Your task to perform on an android device: toggle improve location accuracy Image 0: 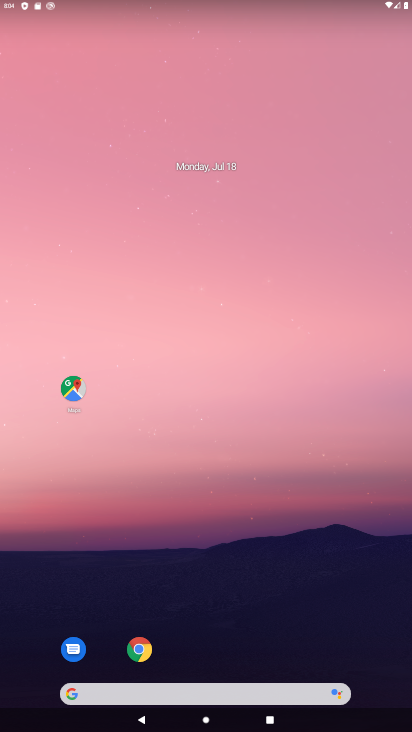
Step 0: drag from (57, 590) to (229, 134)
Your task to perform on an android device: toggle improve location accuracy Image 1: 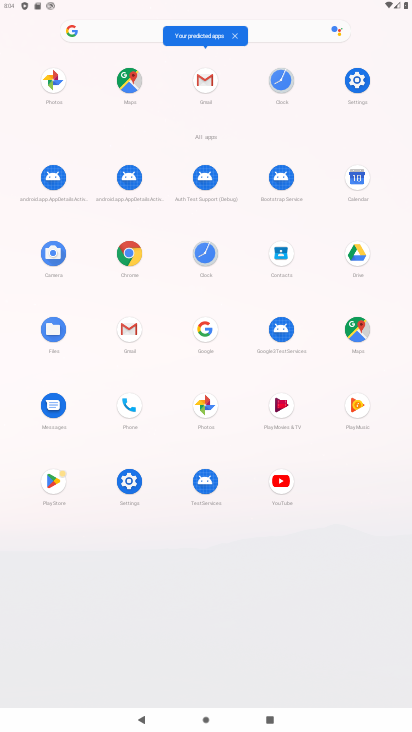
Step 1: click (138, 483)
Your task to perform on an android device: toggle improve location accuracy Image 2: 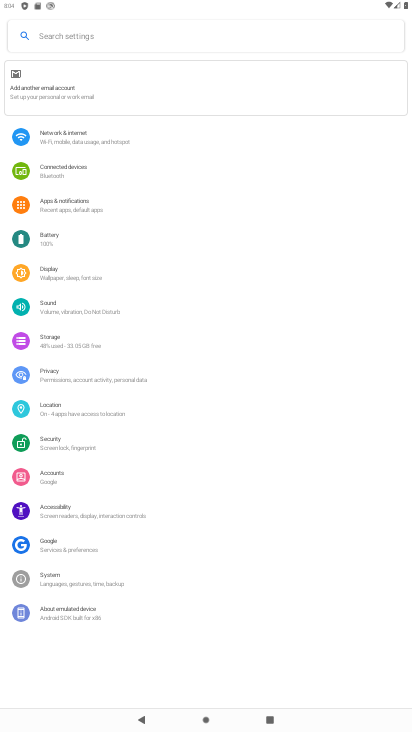
Step 2: click (69, 405)
Your task to perform on an android device: toggle improve location accuracy Image 3: 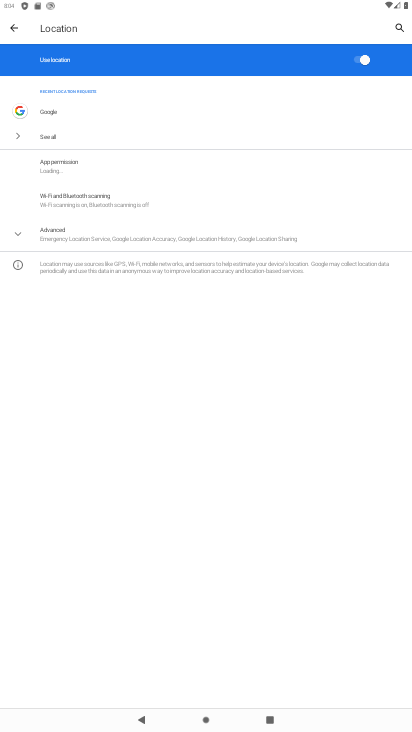
Step 3: click (85, 232)
Your task to perform on an android device: toggle improve location accuracy Image 4: 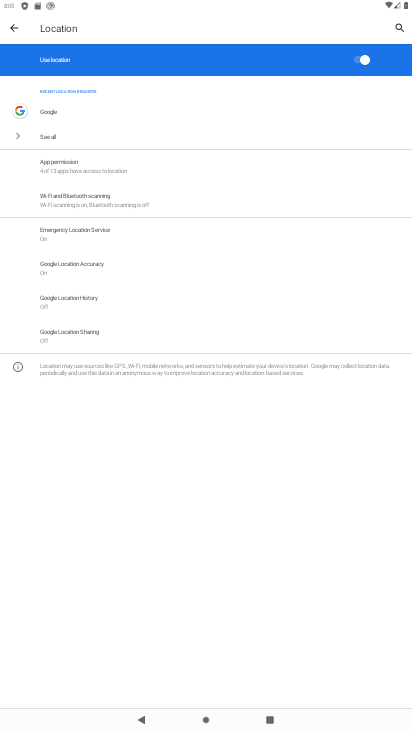
Step 4: click (102, 270)
Your task to perform on an android device: toggle improve location accuracy Image 5: 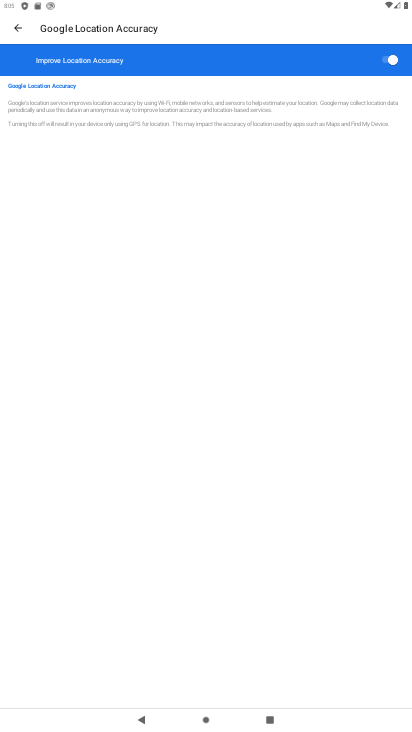
Step 5: task complete